Your task to perform on an android device: Search for "lg ultragear" on target, select the first entry, add it to the cart, then select checkout. Image 0: 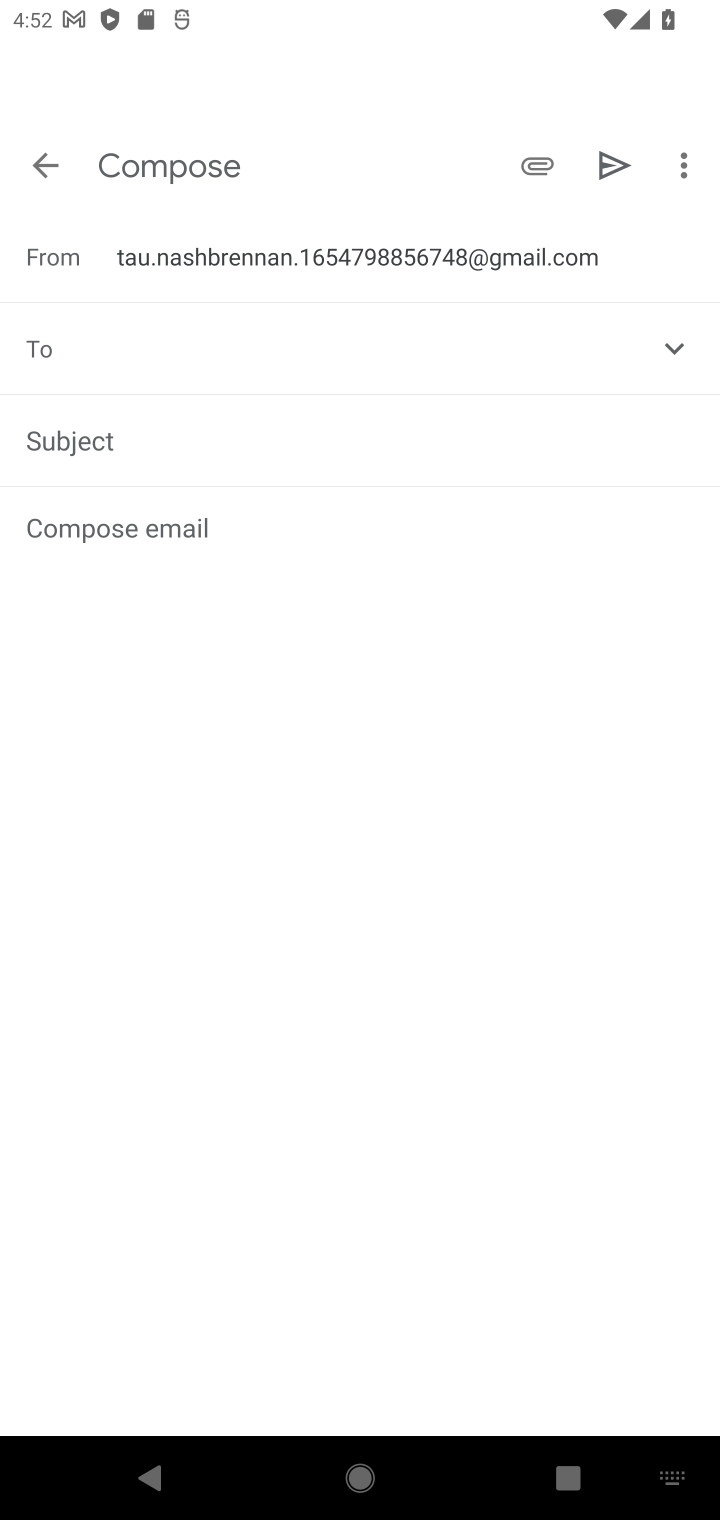
Step 0: press home button
Your task to perform on an android device: Search for "lg ultragear" on target, select the first entry, add it to the cart, then select checkout. Image 1: 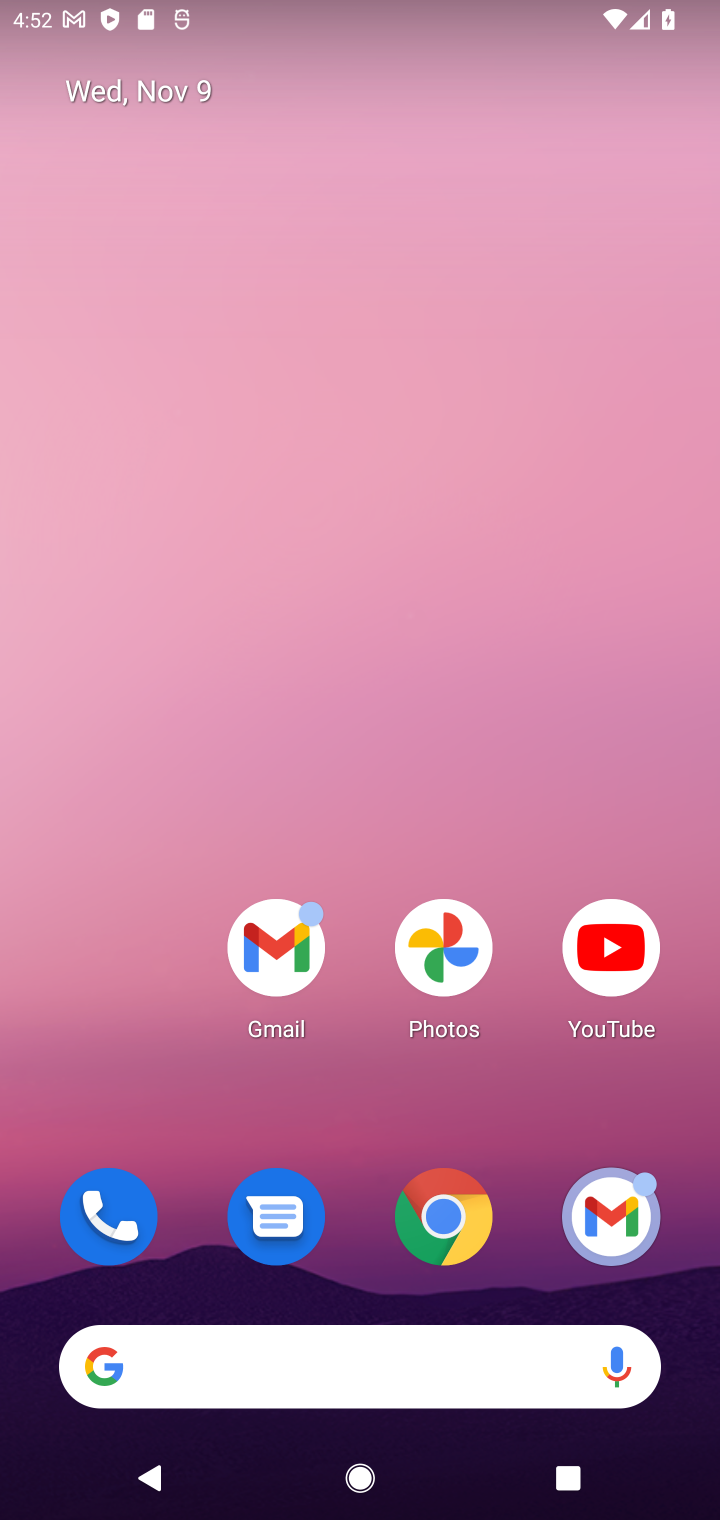
Step 1: drag from (353, 1274) to (400, 267)
Your task to perform on an android device: Search for "lg ultragear" on target, select the first entry, add it to the cart, then select checkout. Image 2: 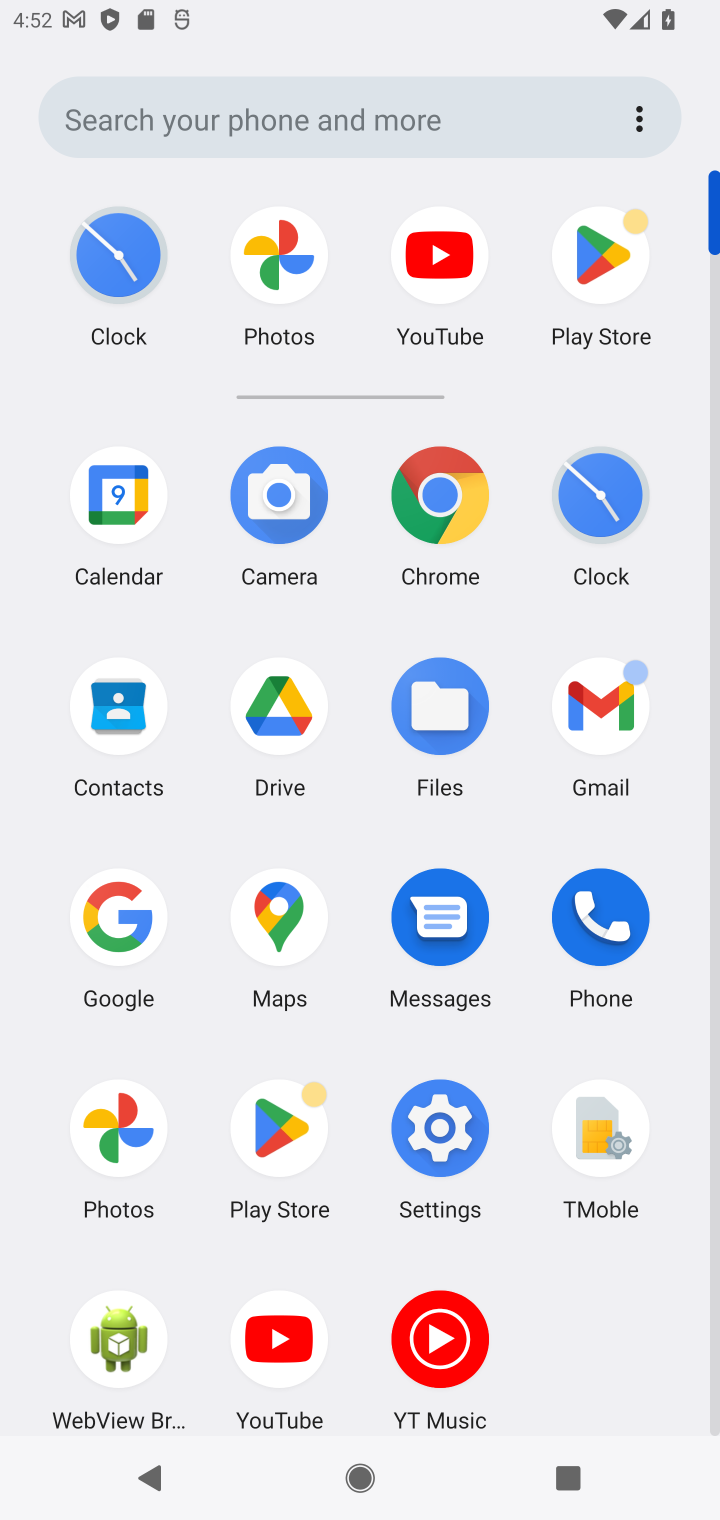
Step 2: click (443, 493)
Your task to perform on an android device: Search for "lg ultragear" on target, select the first entry, add it to the cart, then select checkout. Image 3: 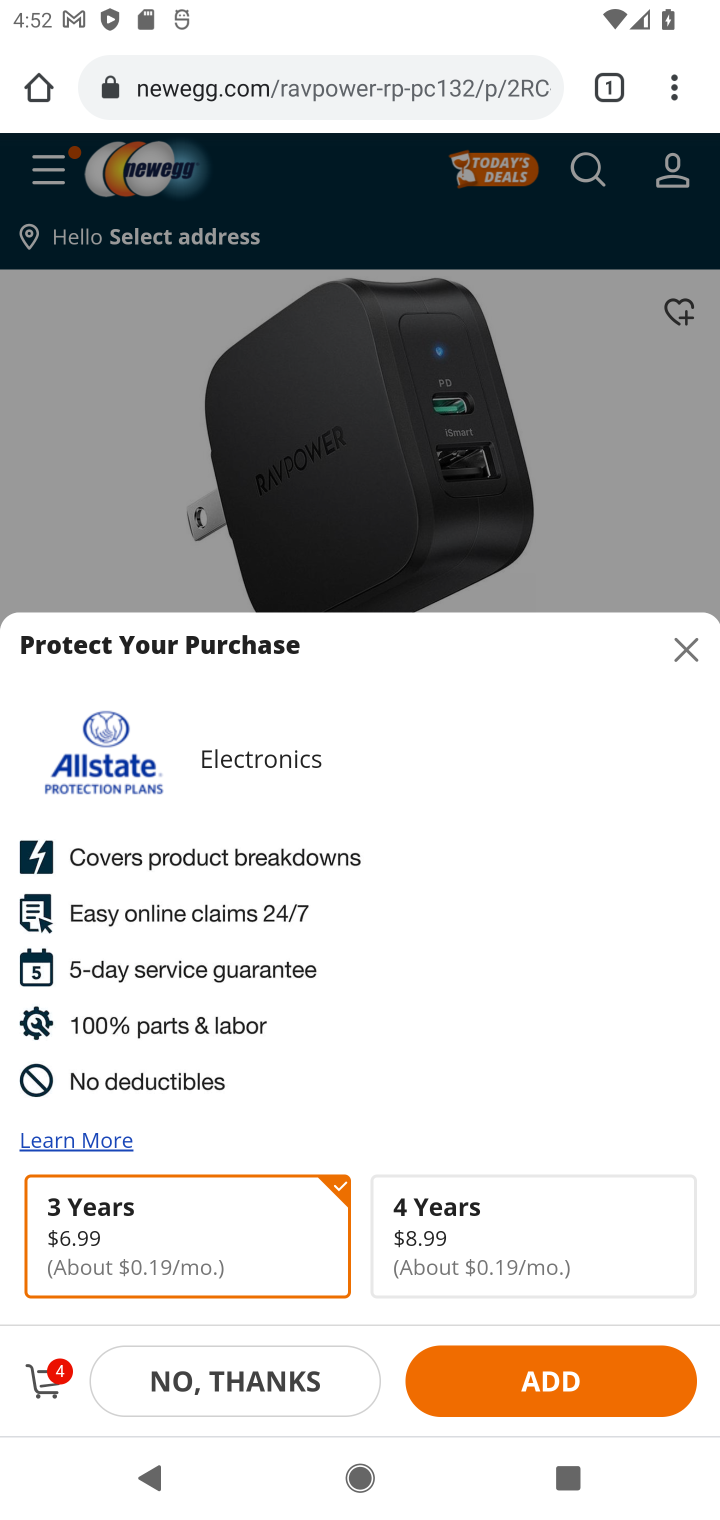
Step 3: click (382, 85)
Your task to perform on an android device: Search for "lg ultragear" on target, select the first entry, add it to the cart, then select checkout. Image 4: 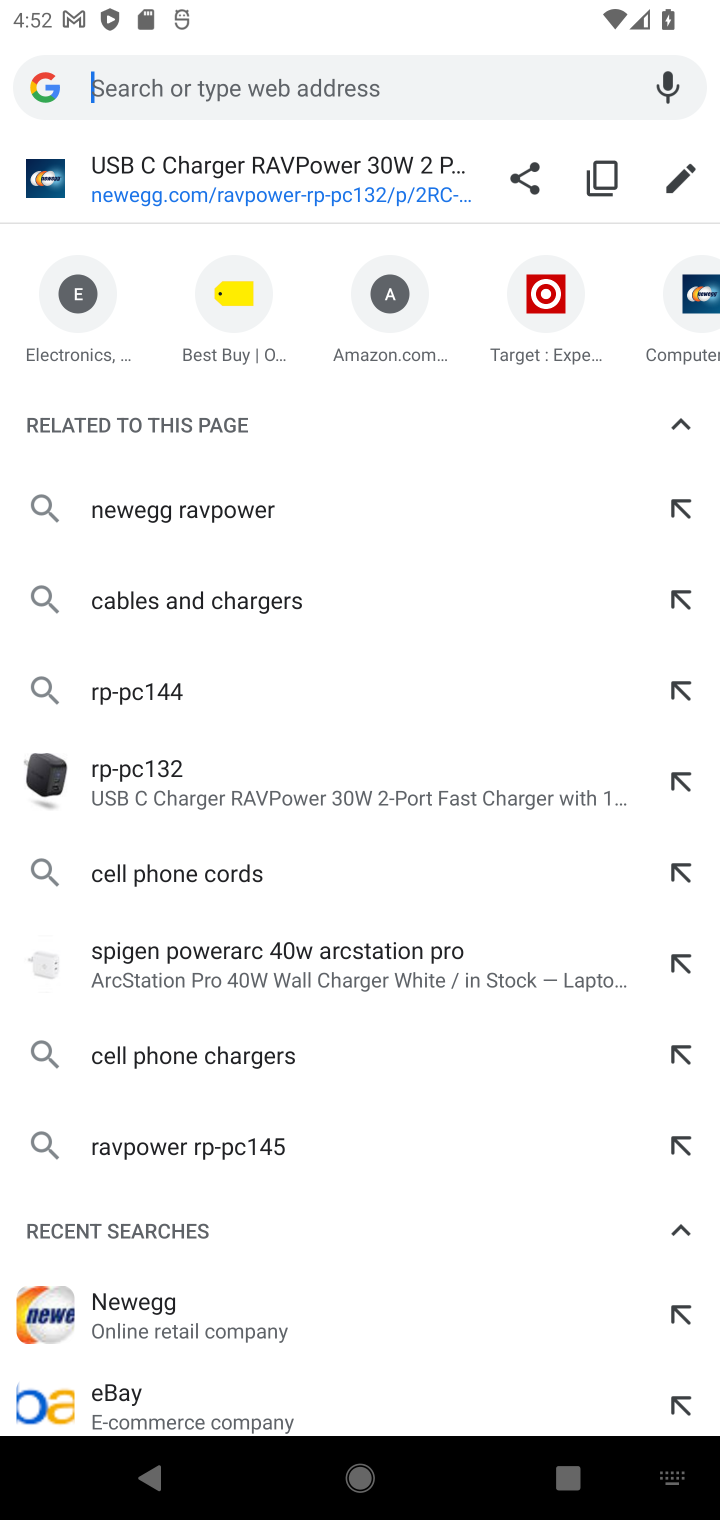
Step 4: type "target.com"
Your task to perform on an android device: Search for "lg ultragear" on target, select the first entry, add it to the cart, then select checkout. Image 5: 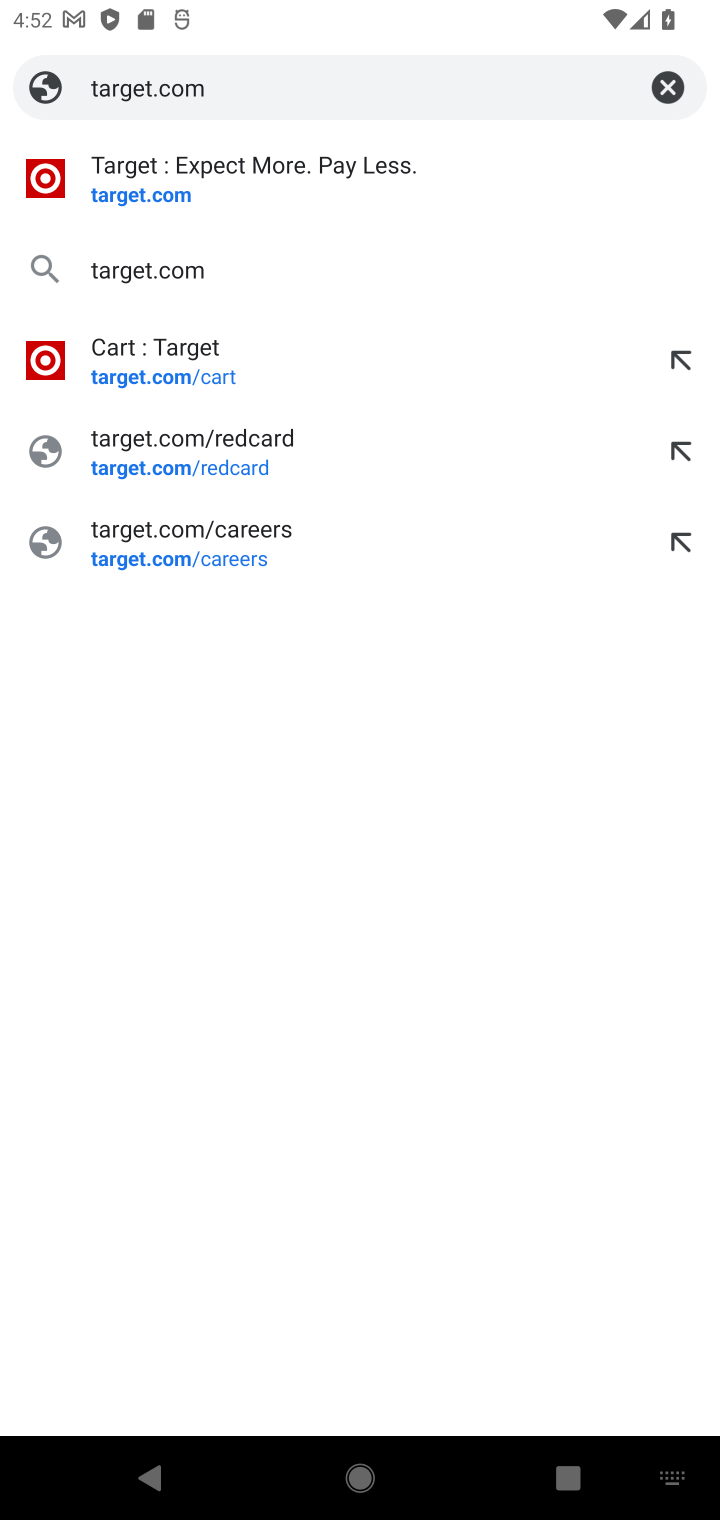
Step 5: press enter
Your task to perform on an android device: Search for "lg ultragear" on target, select the first entry, add it to the cart, then select checkout. Image 6: 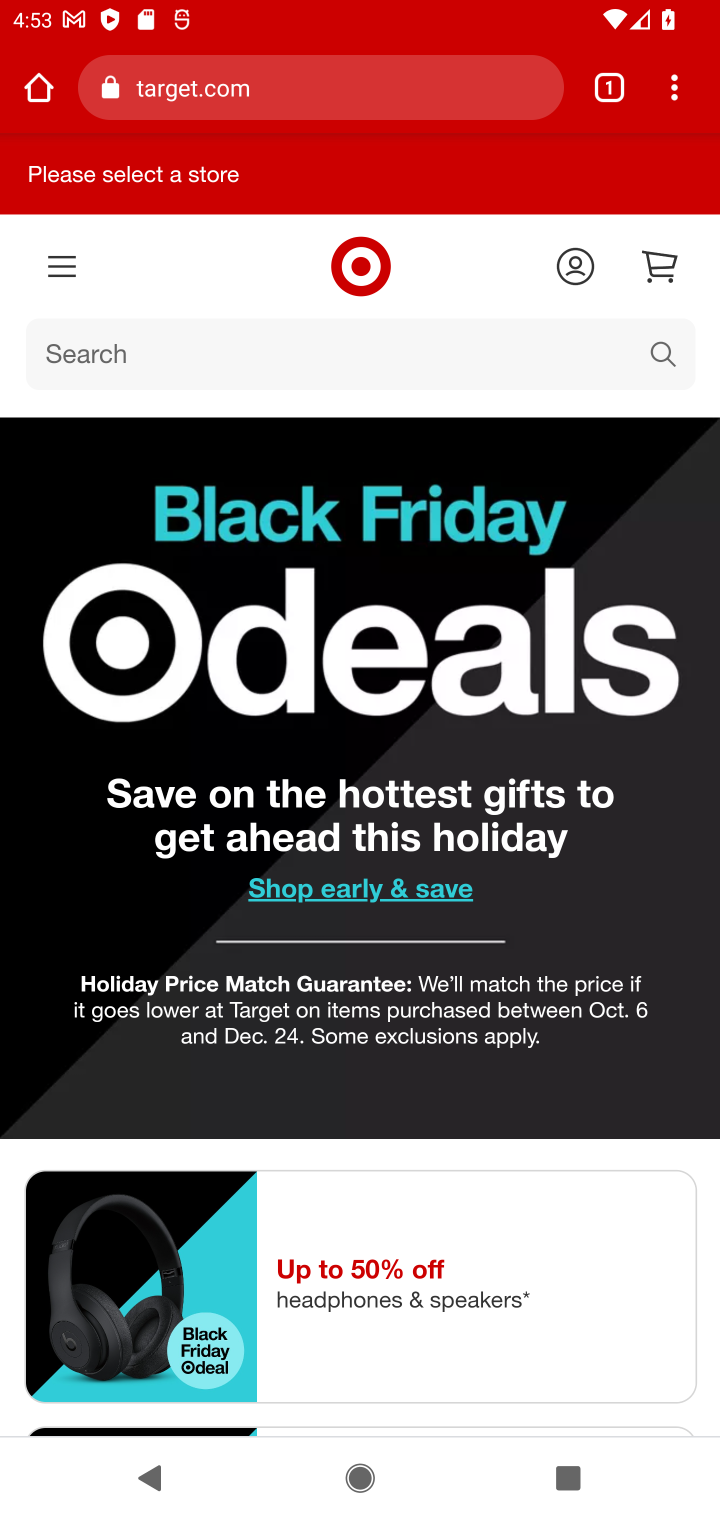
Step 6: click (481, 356)
Your task to perform on an android device: Search for "lg ultragear" on target, select the first entry, add it to the cart, then select checkout. Image 7: 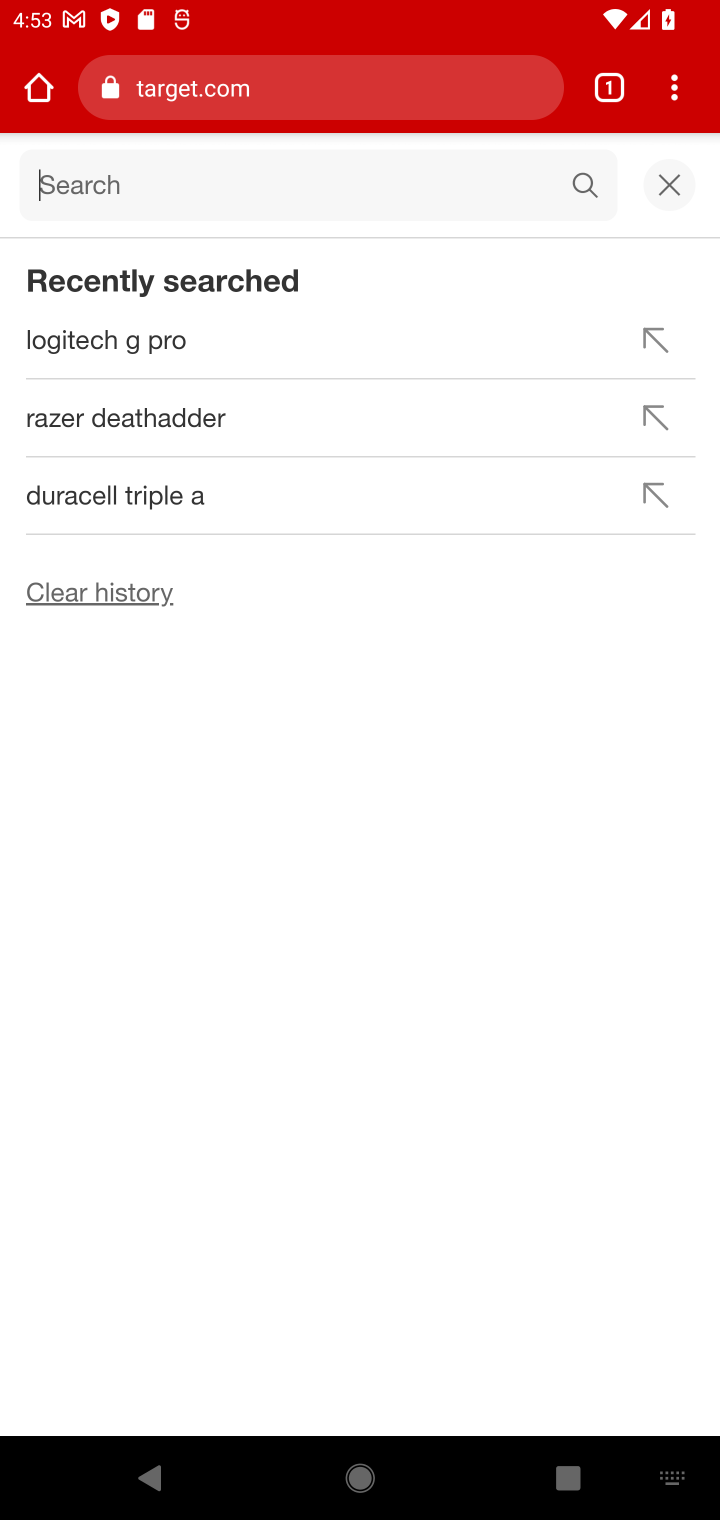
Step 7: type "lg ultragear"
Your task to perform on an android device: Search for "lg ultragear" on target, select the first entry, add it to the cart, then select checkout. Image 8: 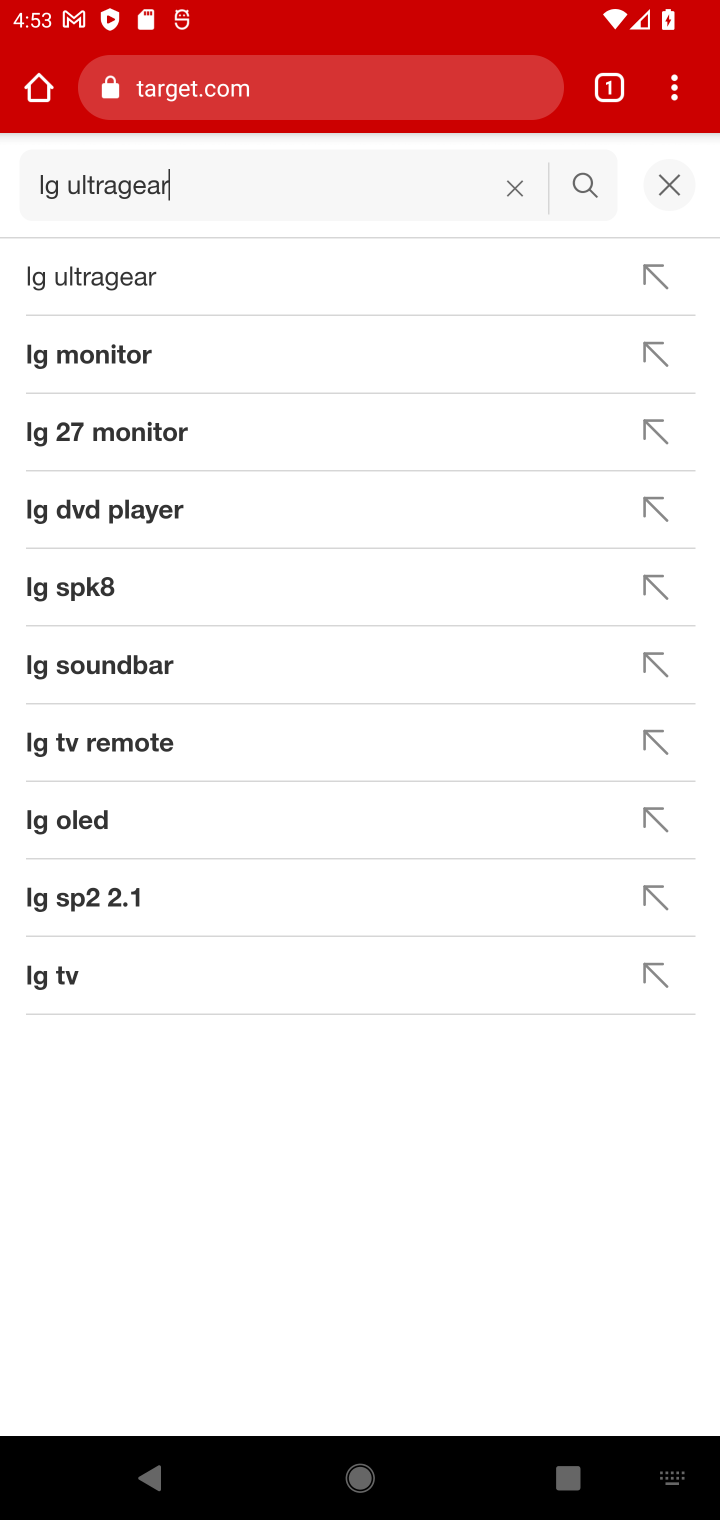
Step 8: press enter
Your task to perform on an android device: Search for "lg ultragear" on target, select the first entry, add it to the cart, then select checkout. Image 9: 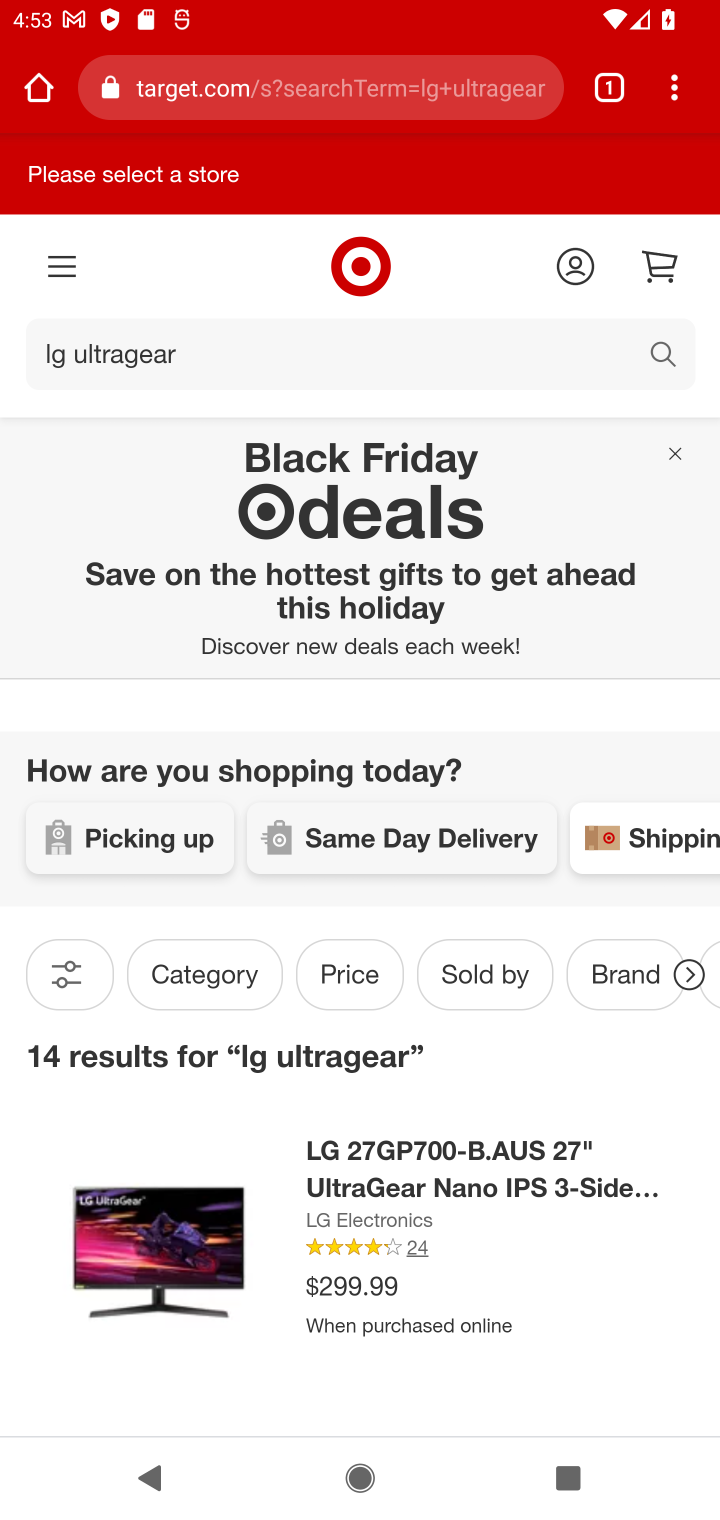
Step 9: drag from (550, 1299) to (509, 377)
Your task to perform on an android device: Search for "lg ultragear" on target, select the first entry, add it to the cart, then select checkout. Image 10: 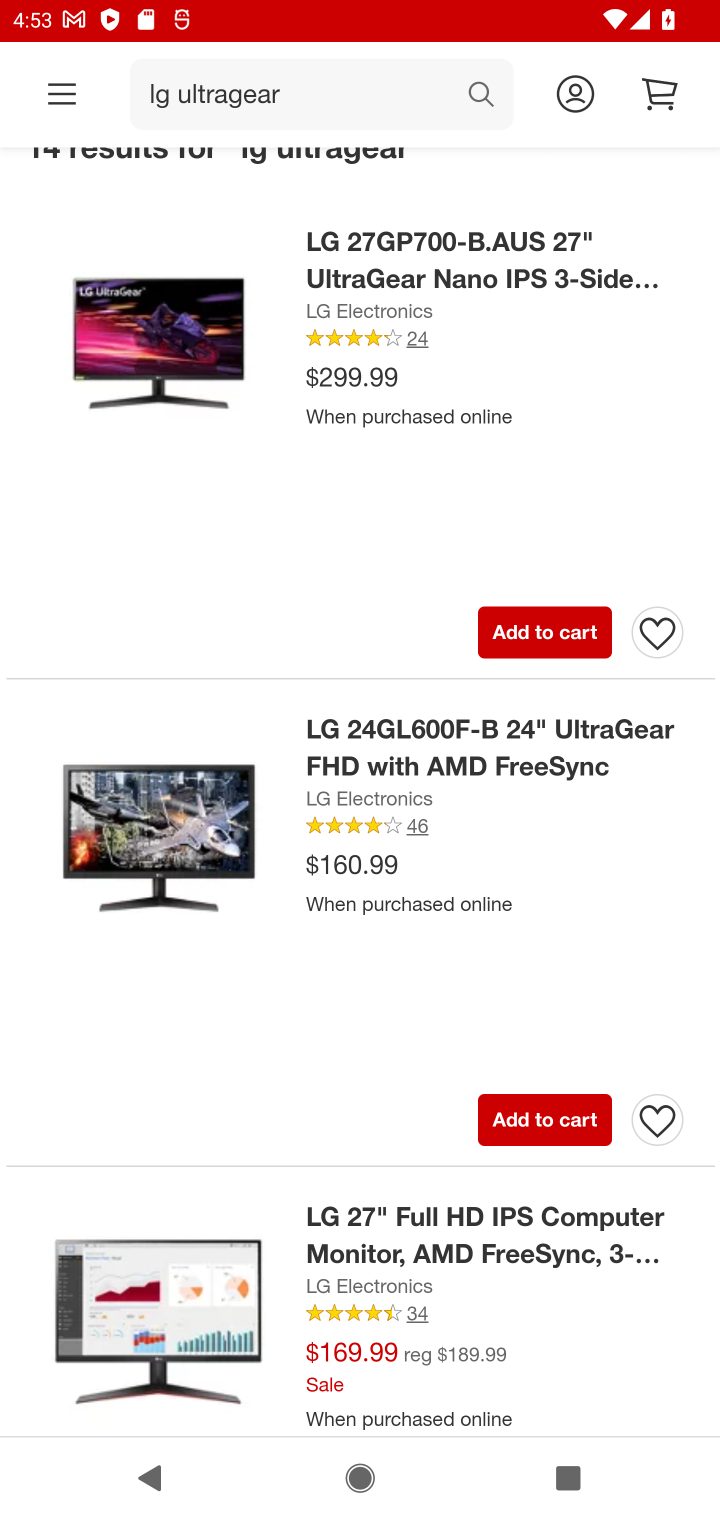
Step 10: drag from (263, 640) to (259, 1204)
Your task to perform on an android device: Search for "lg ultragear" on target, select the first entry, add it to the cart, then select checkout. Image 11: 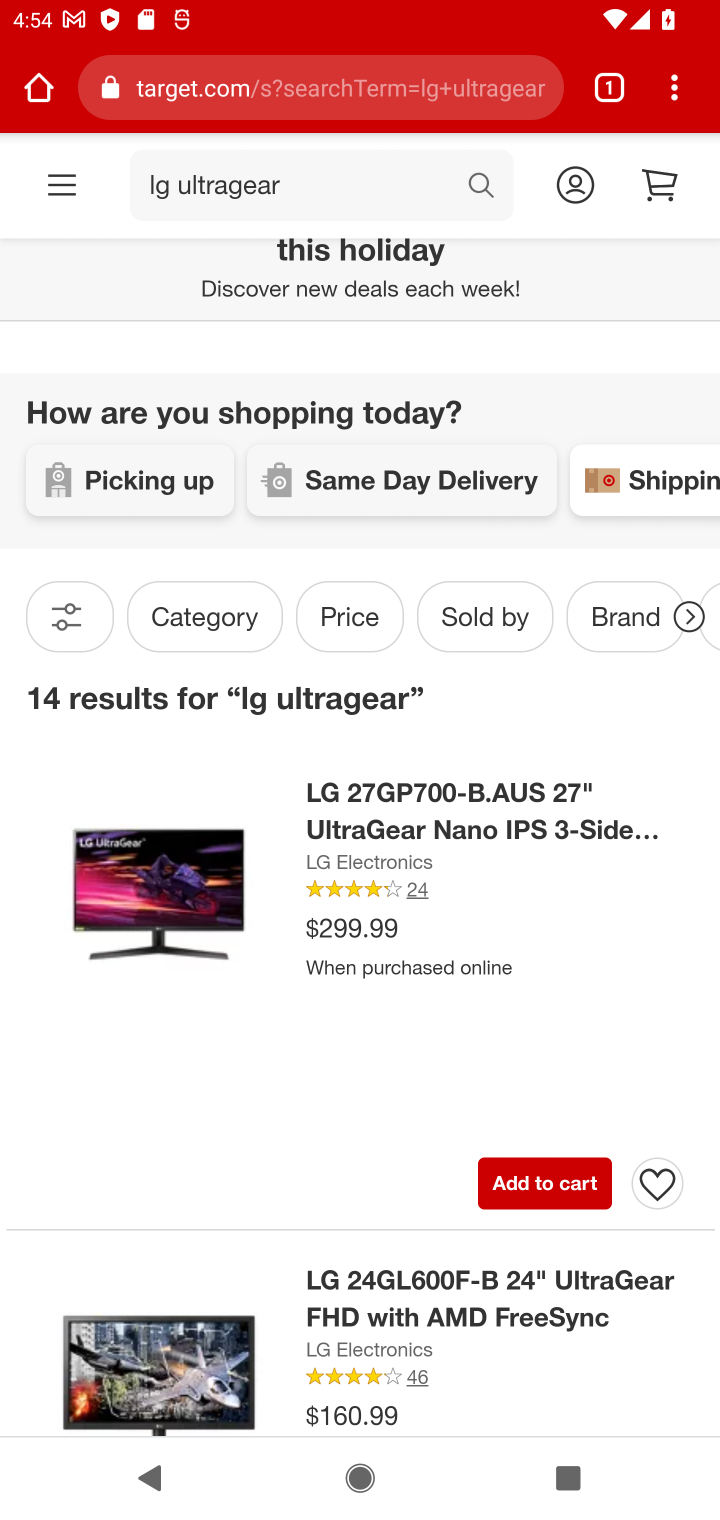
Step 11: click (552, 1182)
Your task to perform on an android device: Search for "lg ultragear" on target, select the first entry, add it to the cart, then select checkout. Image 12: 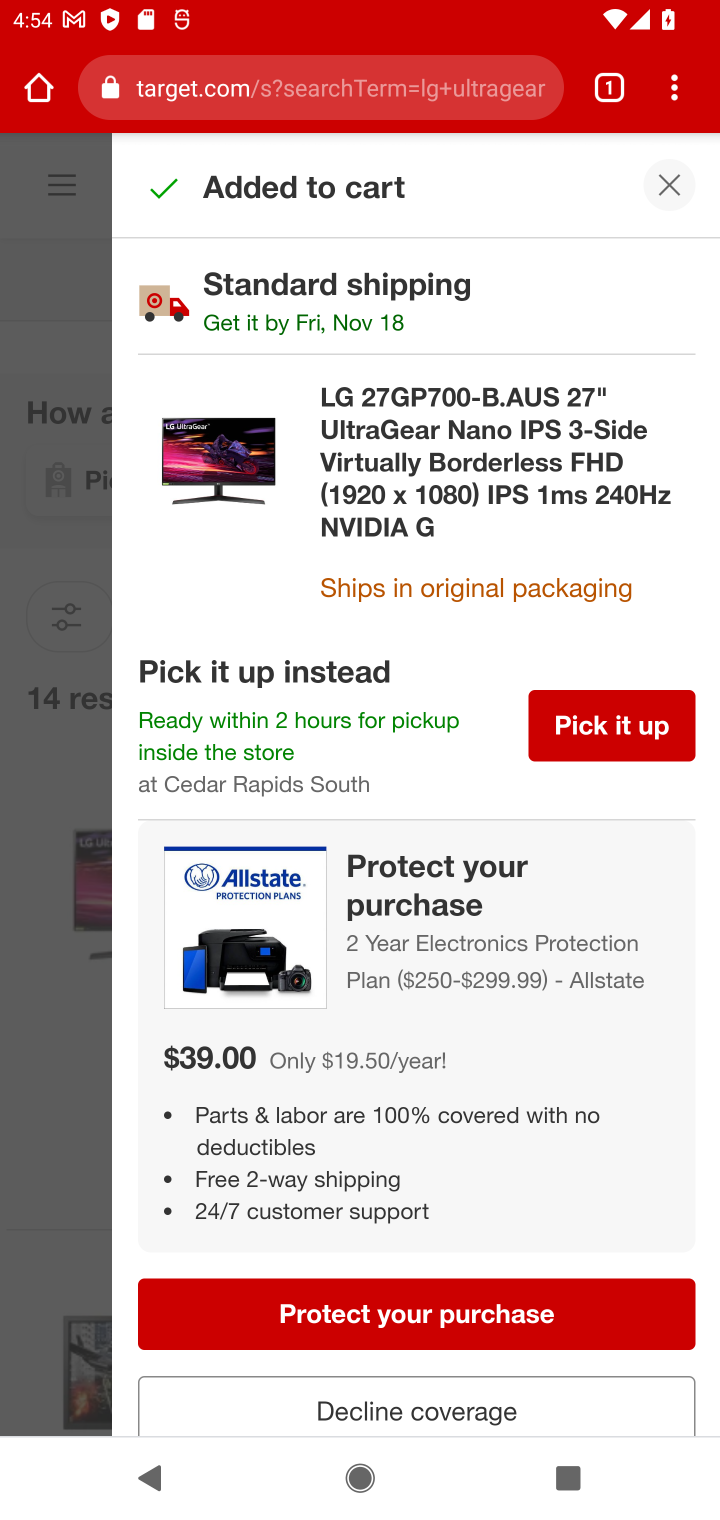
Step 12: drag from (404, 895) to (402, 339)
Your task to perform on an android device: Search for "lg ultragear" on target, select the first entry, add it to the cart, then select checkout. Image 13: 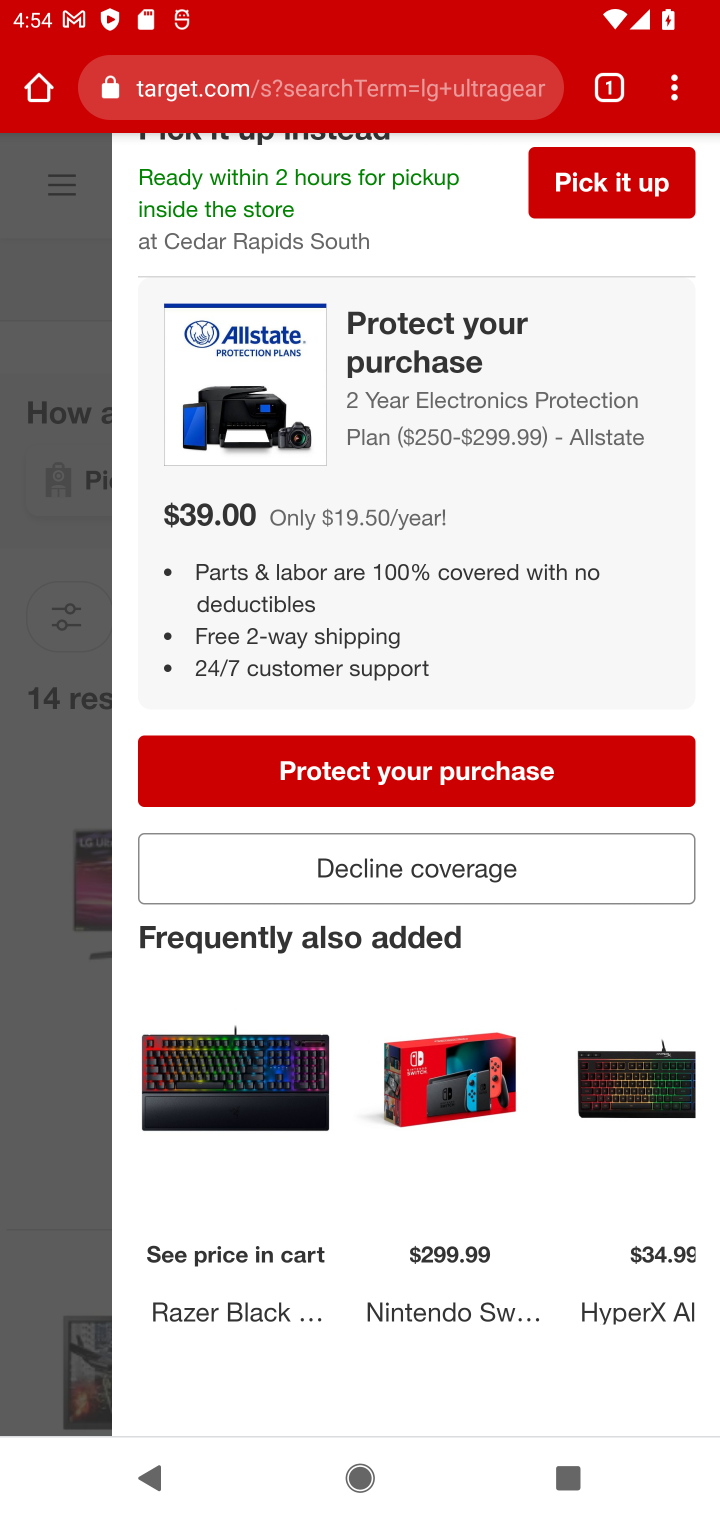
Step 13: drag from (562, 359) to (566, 823)
Your task to perform on an android device: Search for "lg ultragear" on target, select the first entry, add it to the cart, then select checkout. Image 14: 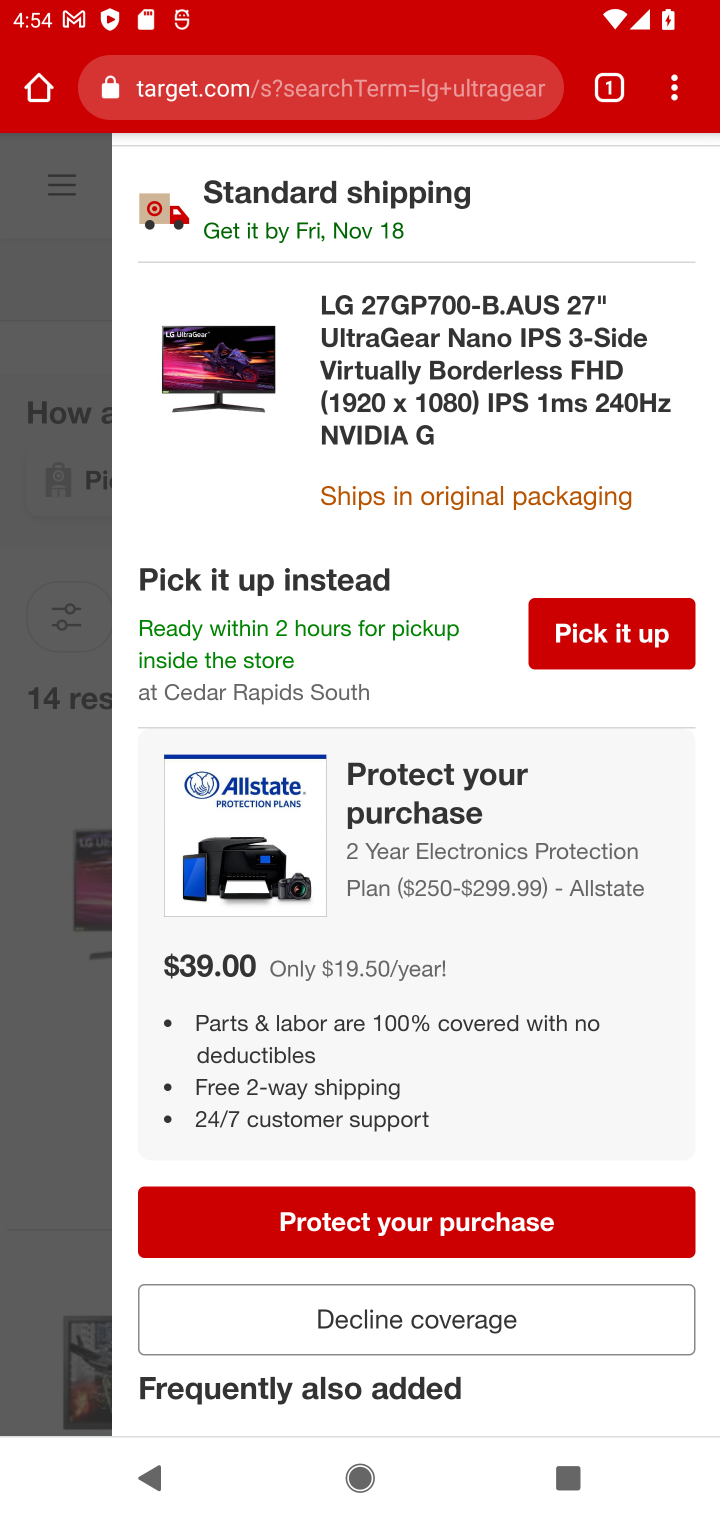
Step 14: click (68, 665)
Your task to perform on an android device: Search for "lg ultragear" on target, select the first entry, add it to the cart, then select checkout. Image 15: 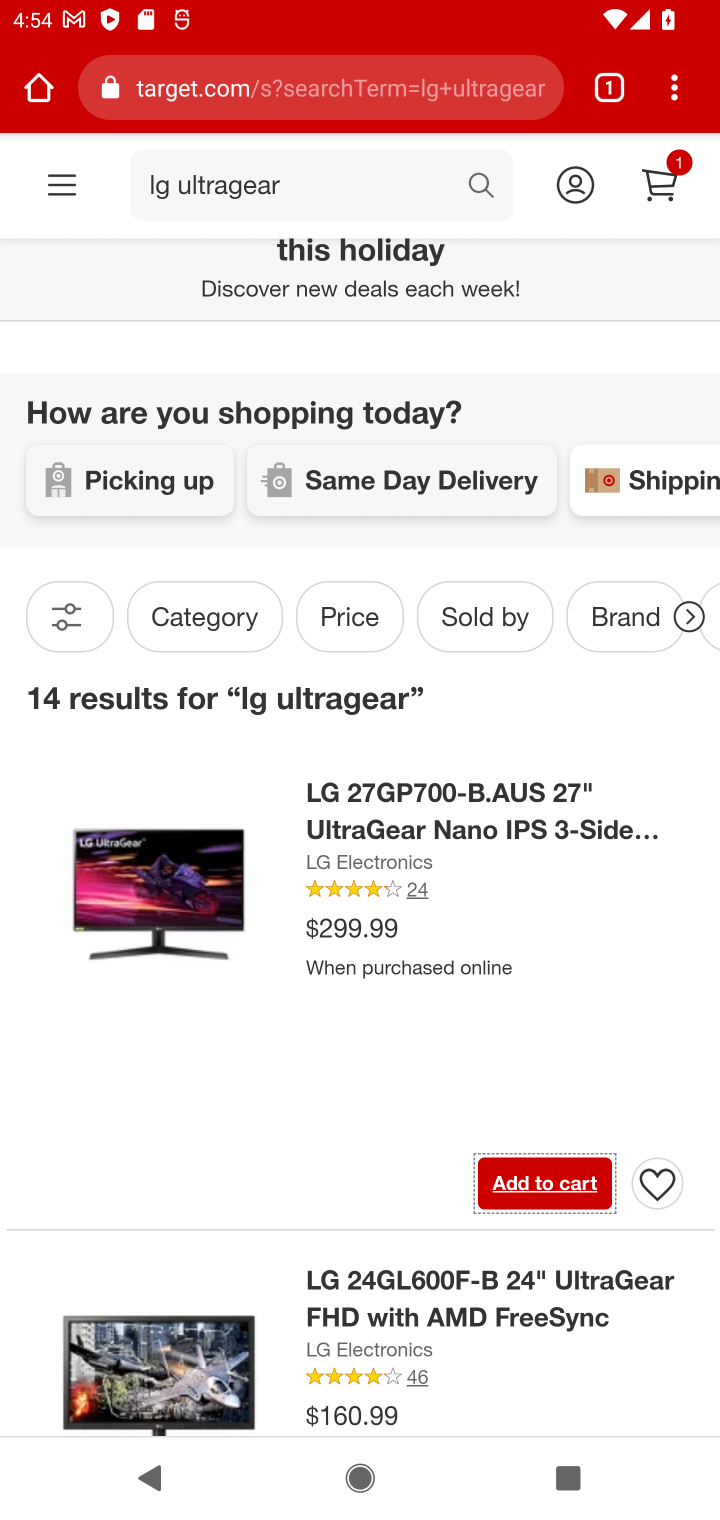
Step 15: click (660, 169)
Your task to perform on an android device: Search for "lg ultragear" on target, select the first entry, add it to the cart, then select checkout. Image 16: 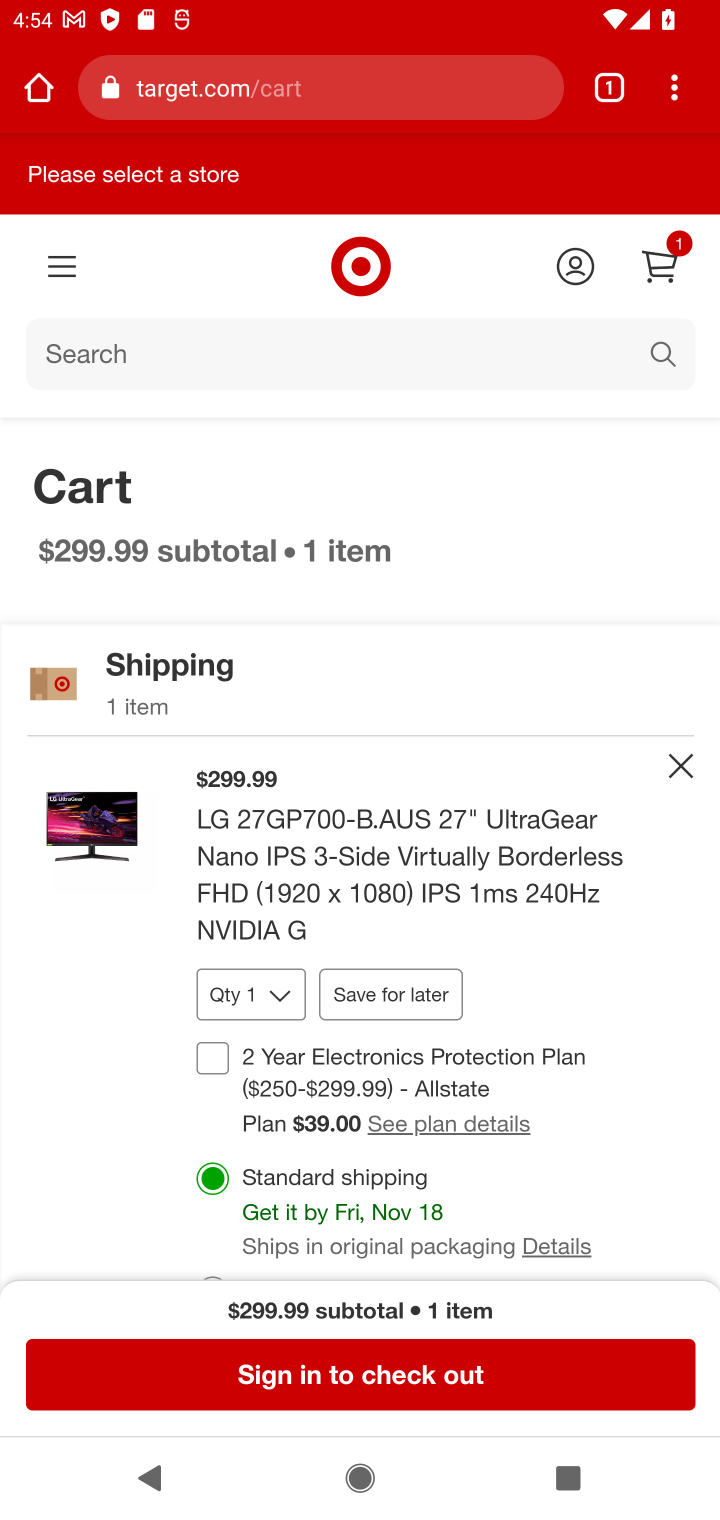
Step 16: click (448, 1389)
Your task to perform on an android device: Search for "lg ultragear" on target, select the first entry, add it to the cart, then select checkout. Image 17: 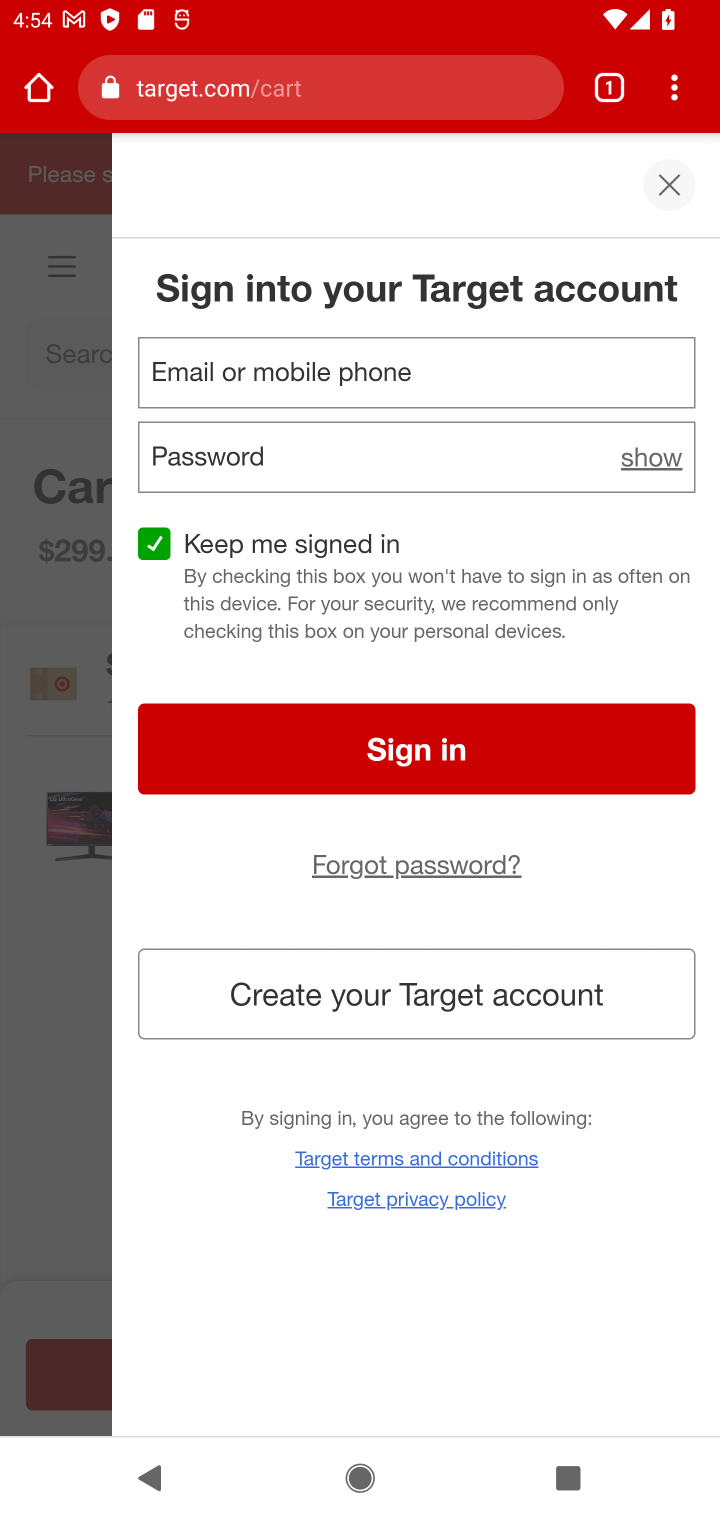
Step 17: task complete